Your task to perform on an android device: Go to CNN.com Image 0: 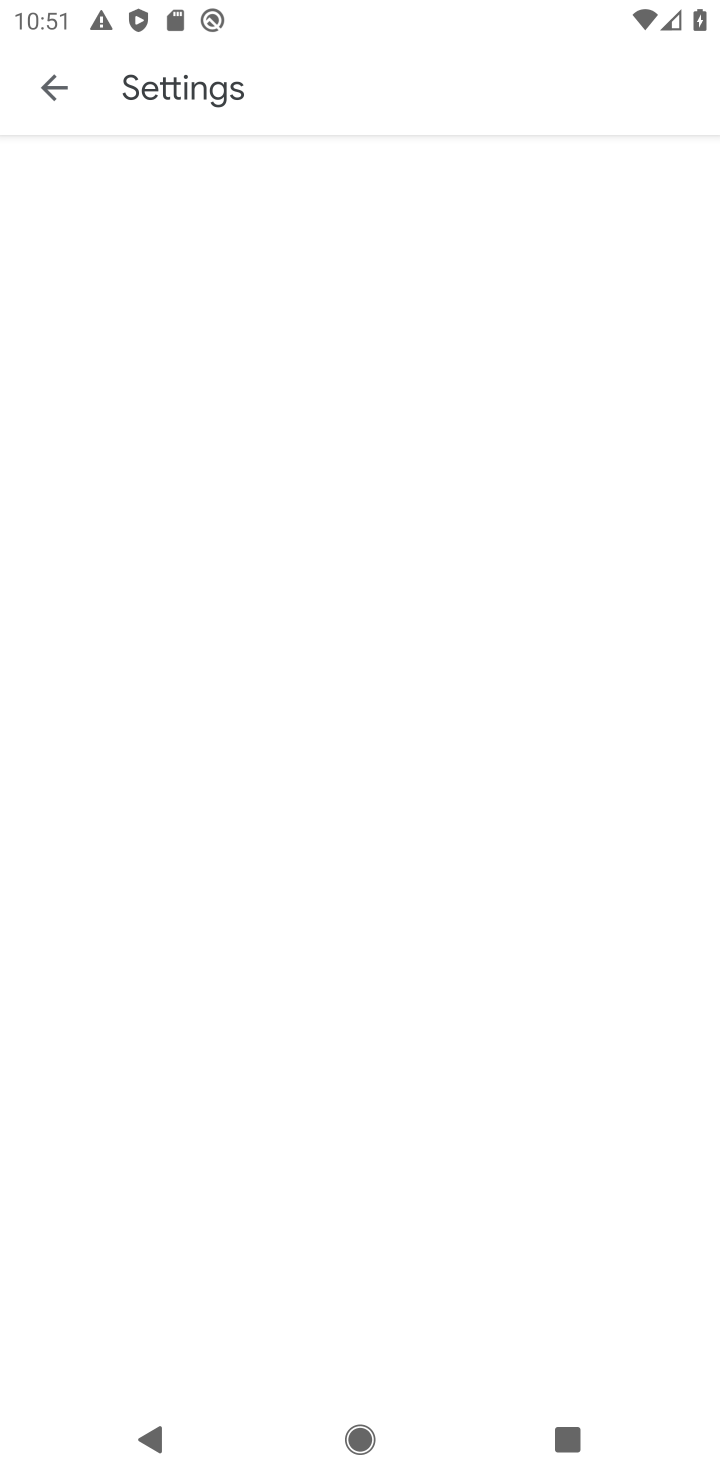
Step 0: press home button
Your task to perform on an android device: Go to CNN.com Image 1: 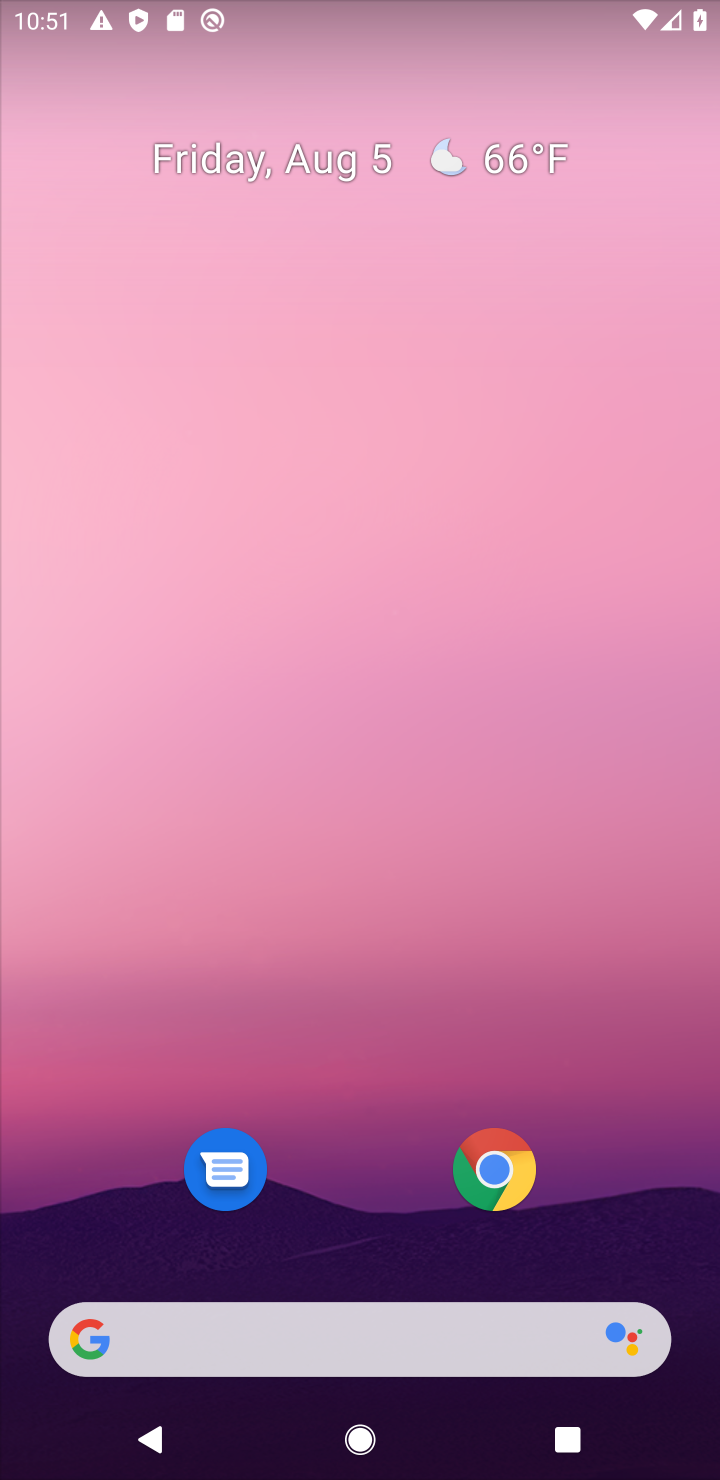
Step 1: drag from (314, 705) to (312, 403)
Your task to perform on an android device: Go to CNN.com Image 2: 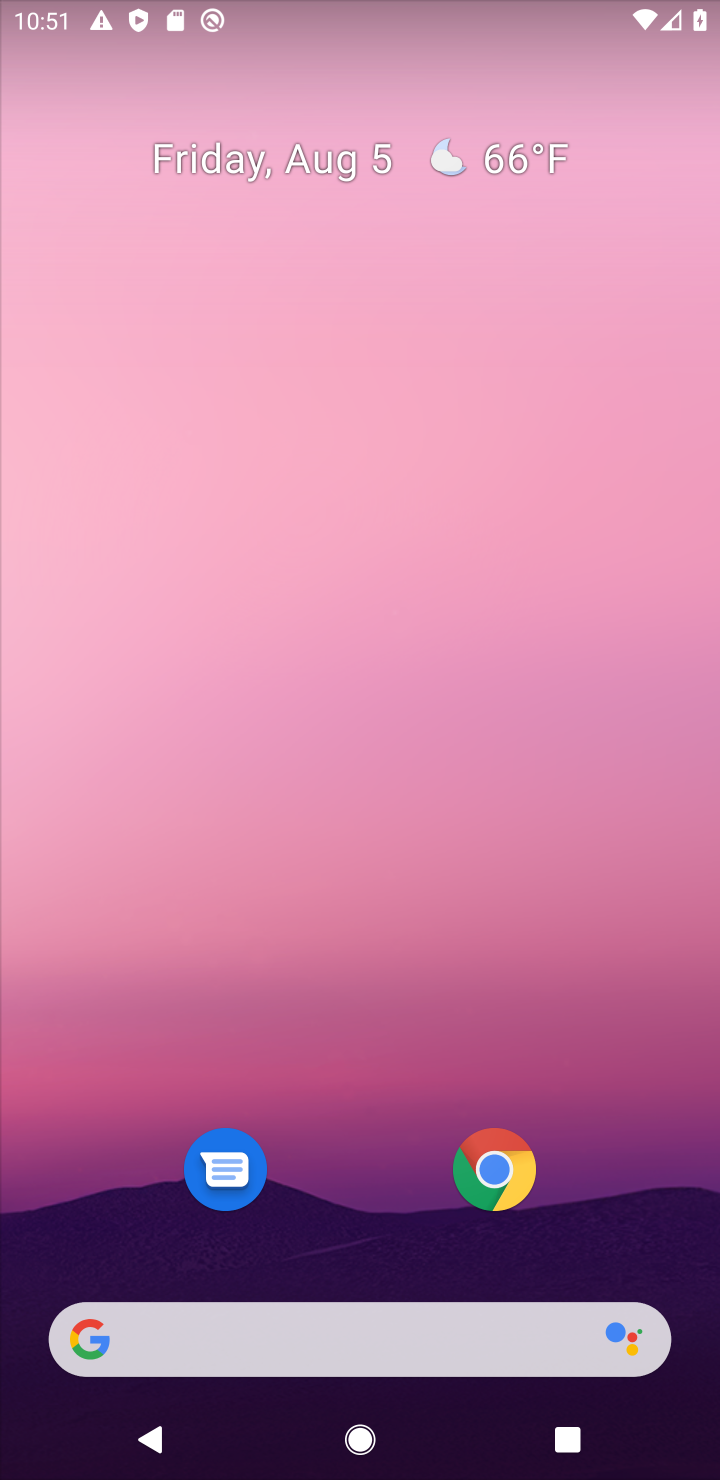
Step 2: click (475, 1161)
Your task to perform on an android device: Go to CNN.com Image 3: 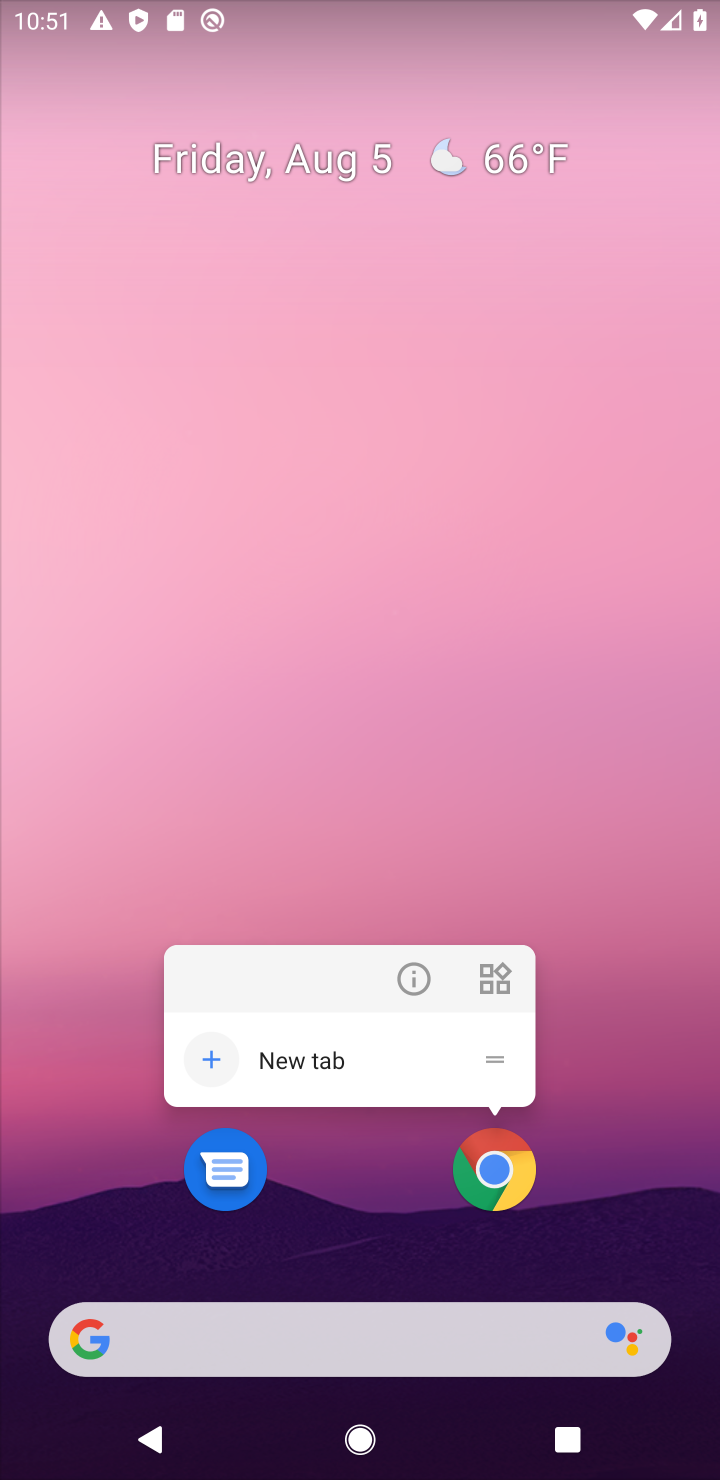
Step 3: click (473, 1161)
Your task to perform on an android device: Go to CNN.com Image 4: 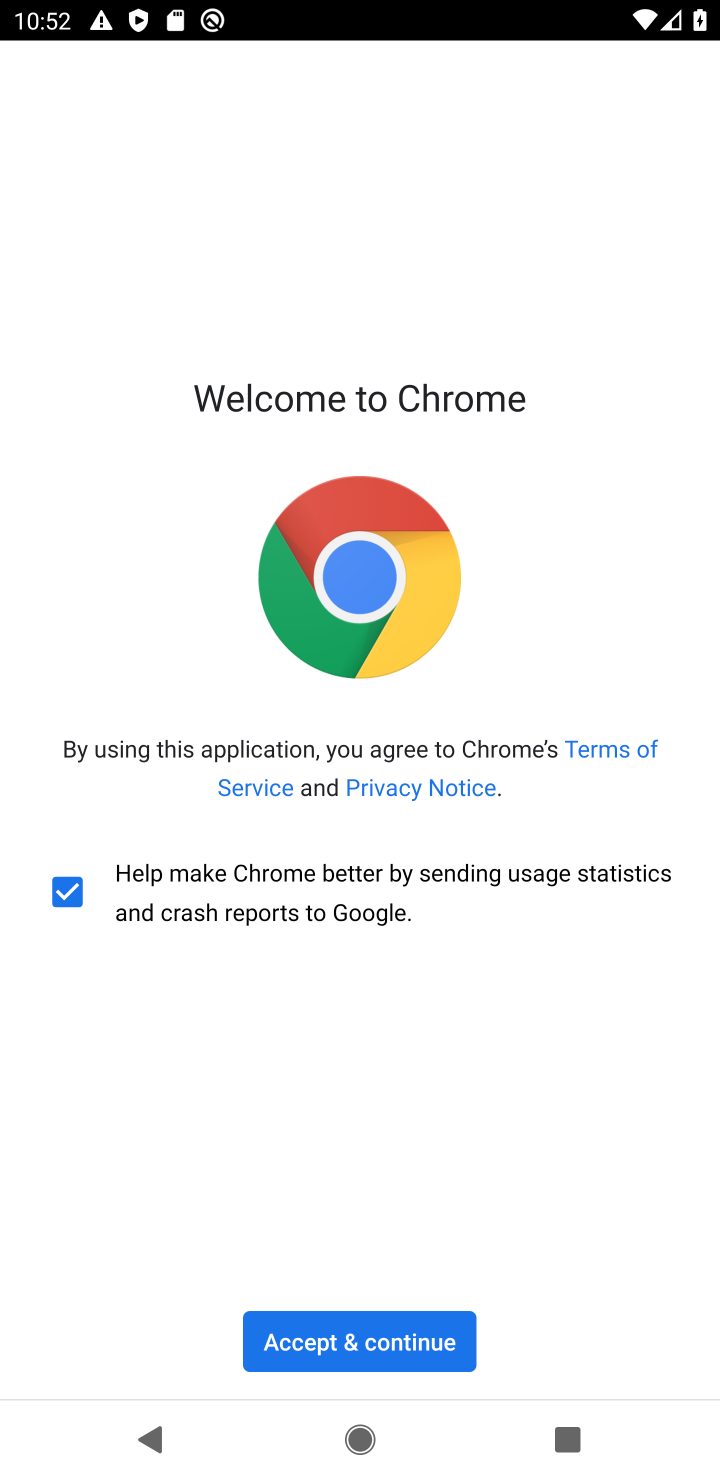
Step 4: click (327, 1345)
Your task to perform on an android device: Go to CNN.com Image 5: 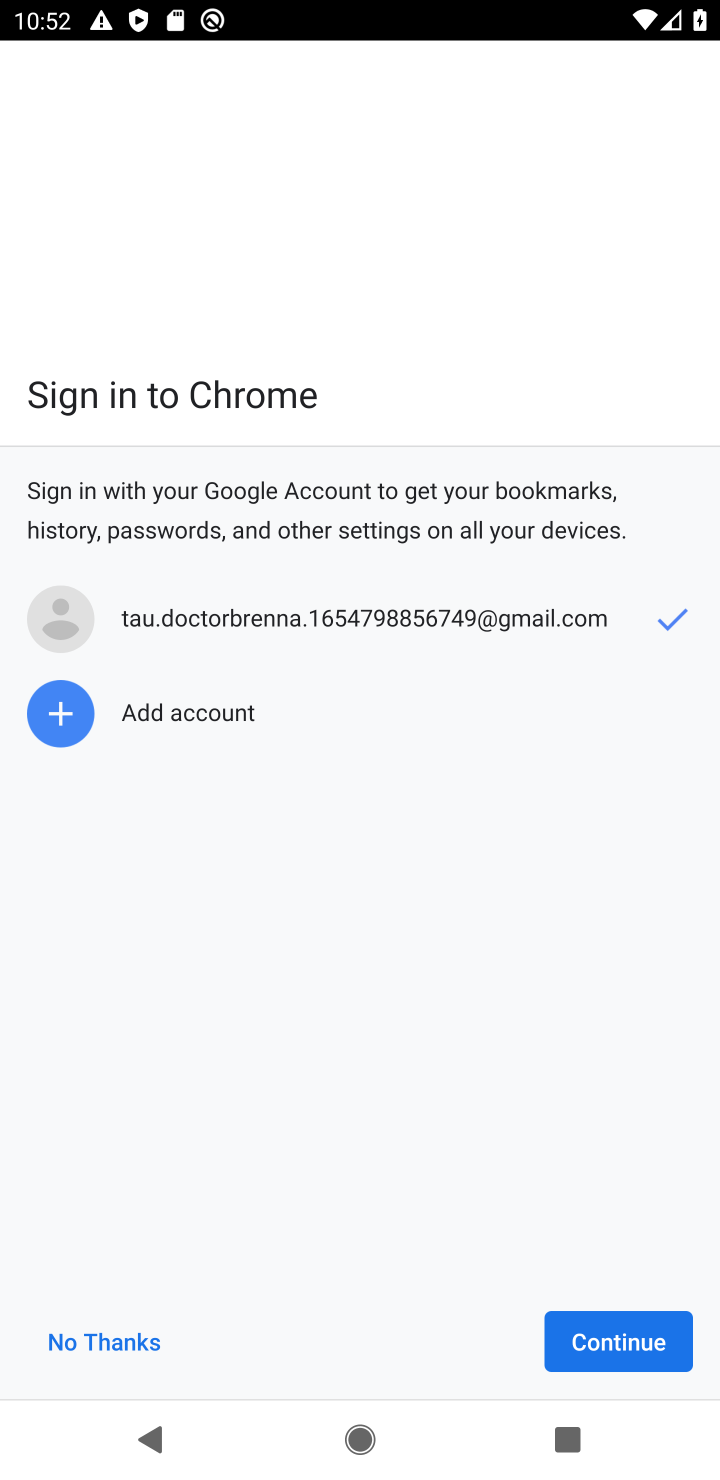
Step 5: click (627, 1335)
Your task to perform on an android device: Go to CNN.com Image 6: 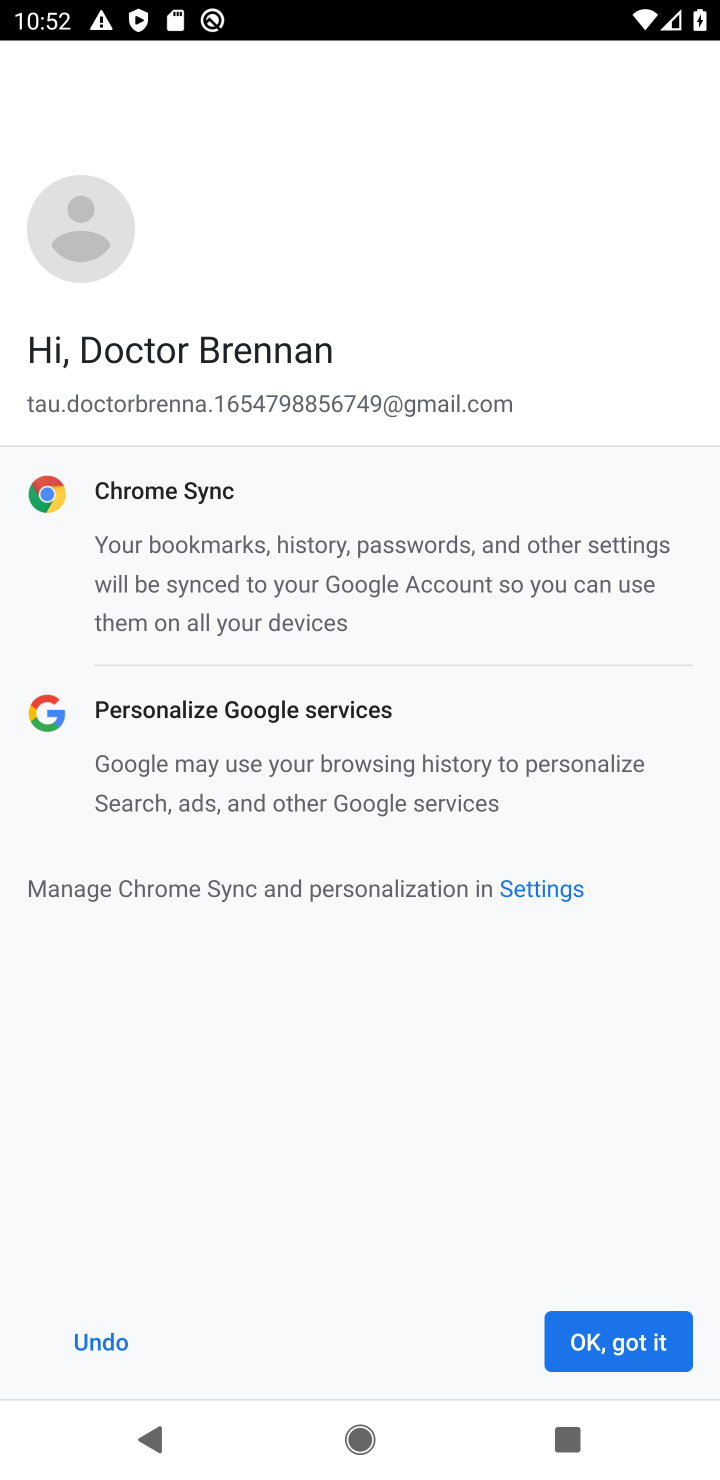
Step 6: click (629, 1340)
Your task to perform on an android device: Go to CNN.com Image 7: 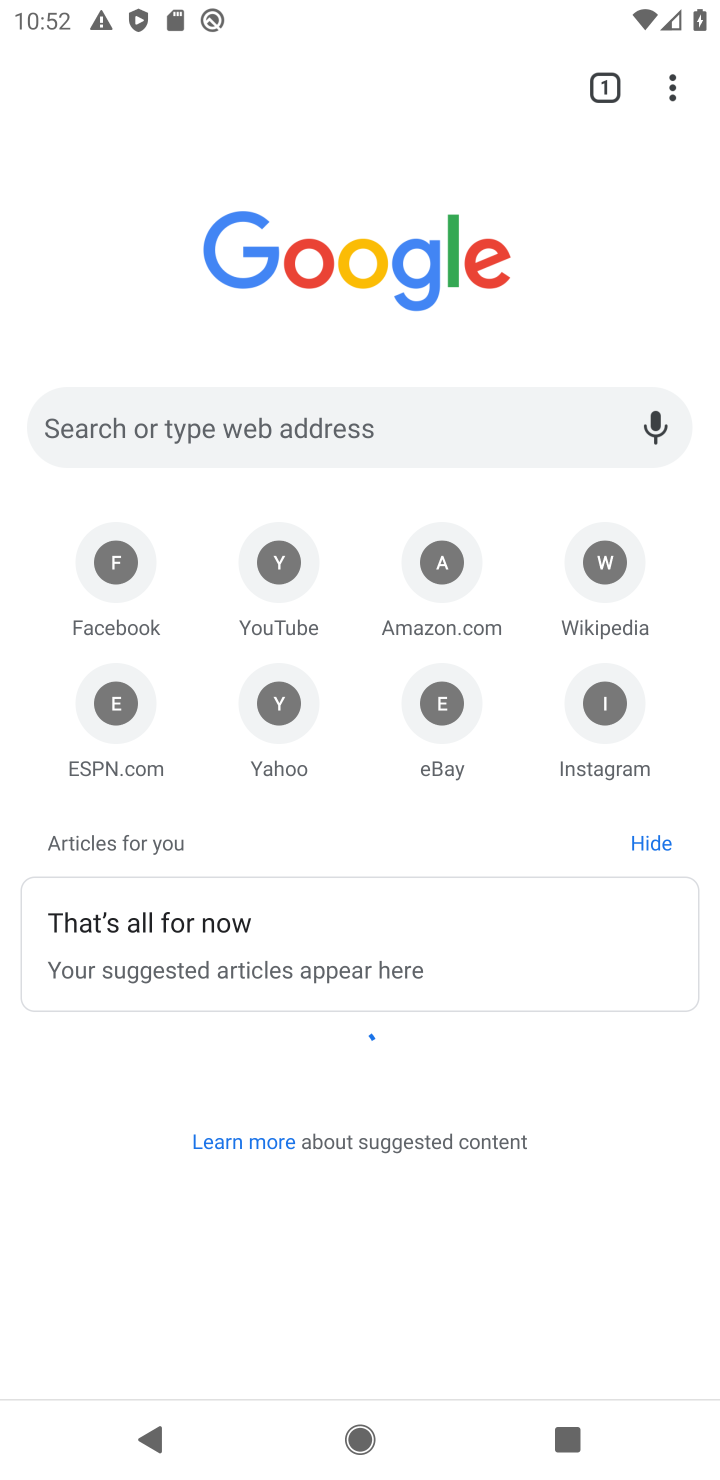
Step 7: click (360, 437)
Your task to perform on an android device: Go to CNN.com Image 8: 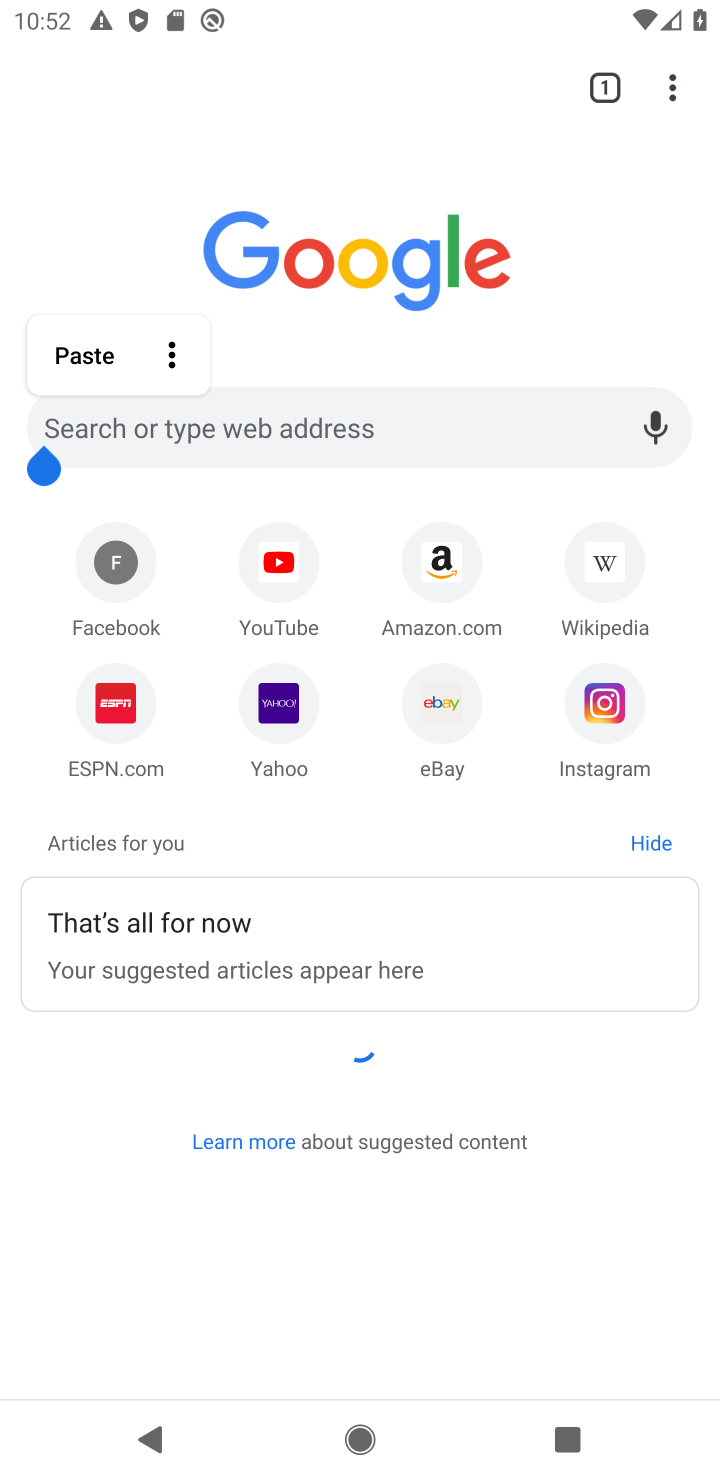
Step 8: type "CNN.com"
Your task to perform on an android device: Go to CNN.com Image 9: 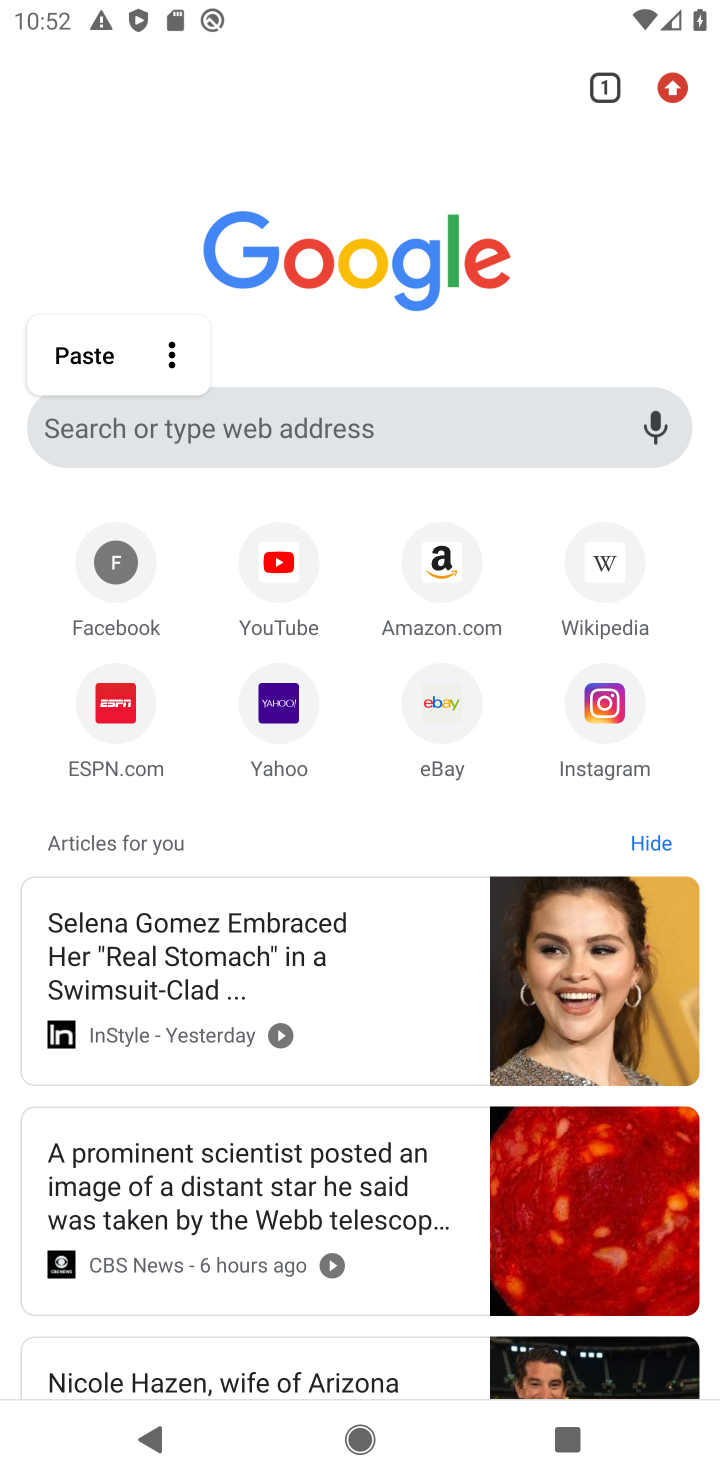
Step 9: click (355, 413)
Your task to perform on an android device: Go to CNN.com Image 10: 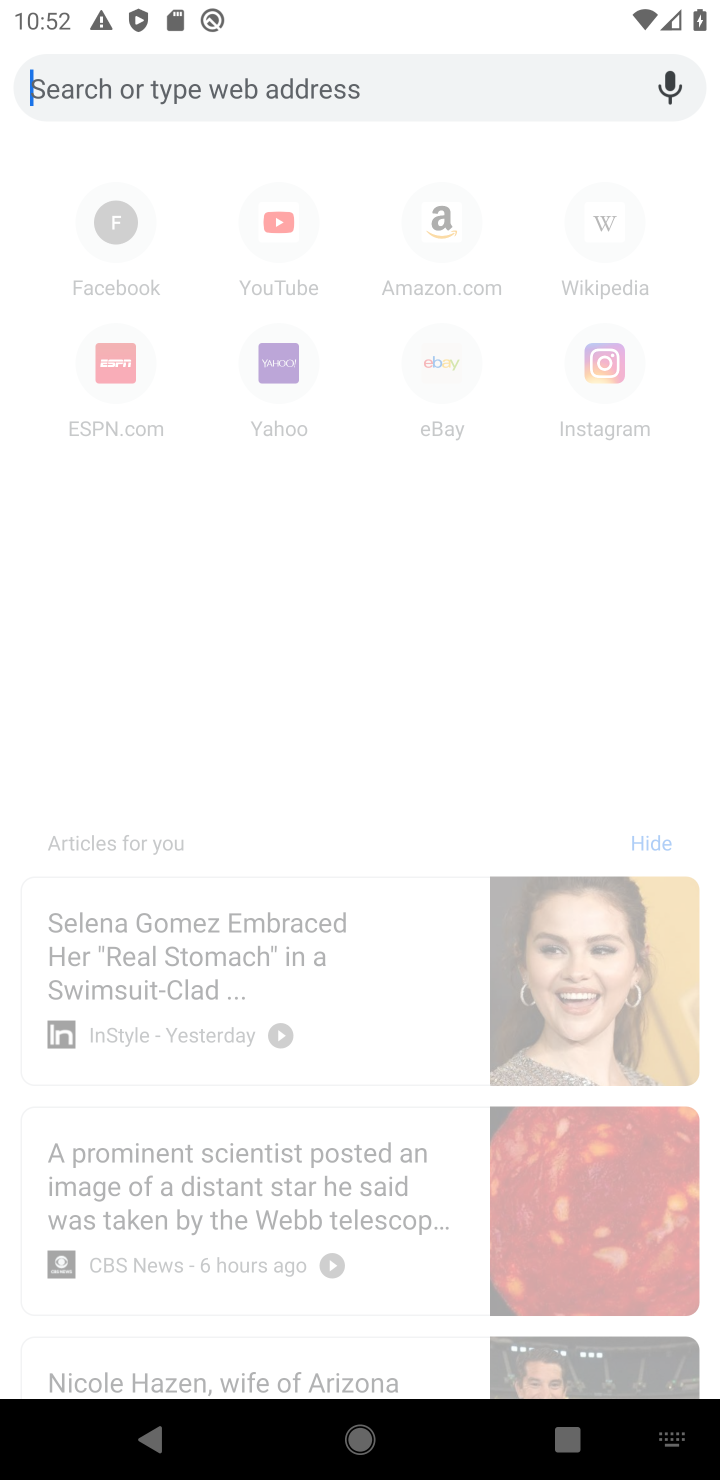
Step 10: type "CNN.com"
Your task to perform on an android device: Go to CNN.com Image 11: 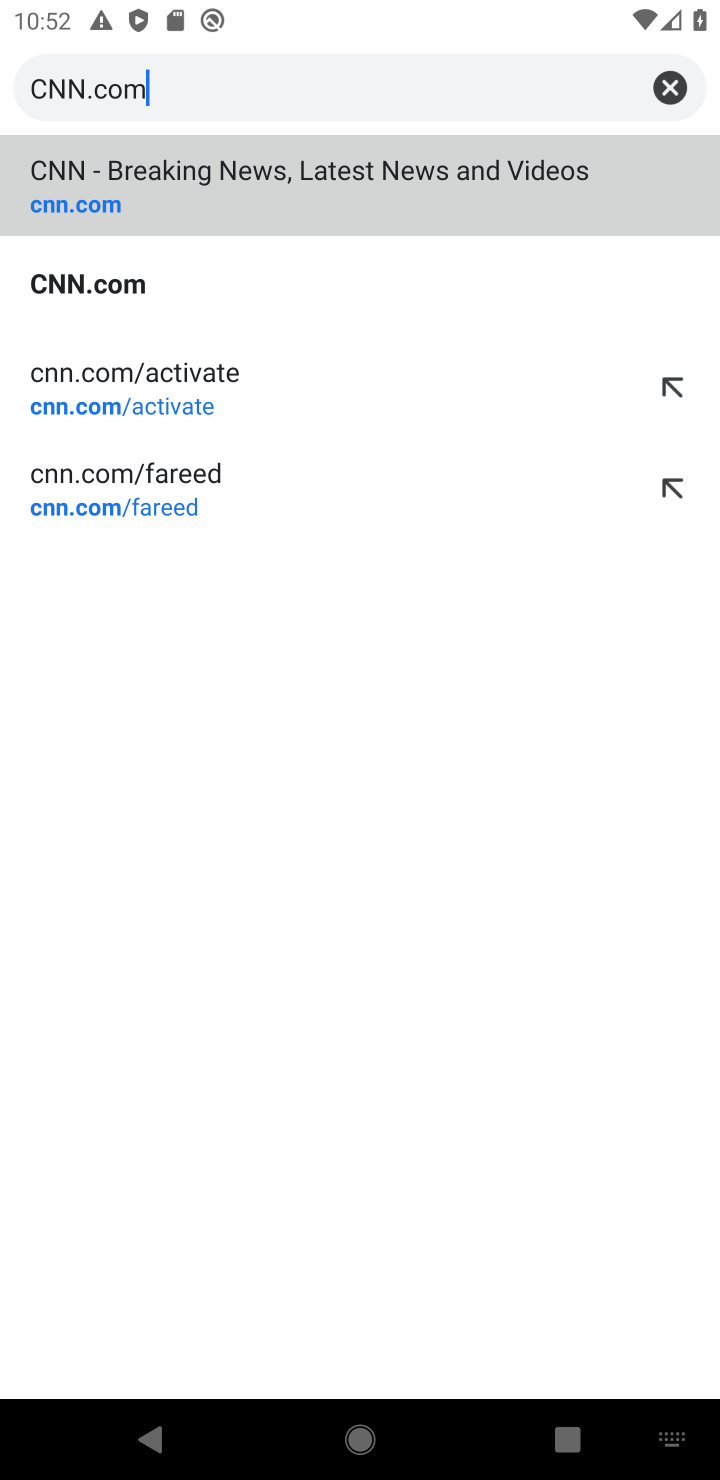
Step 11: click (226, 154)
Your task to perform on an android device: Go to CNN.com Image 12: 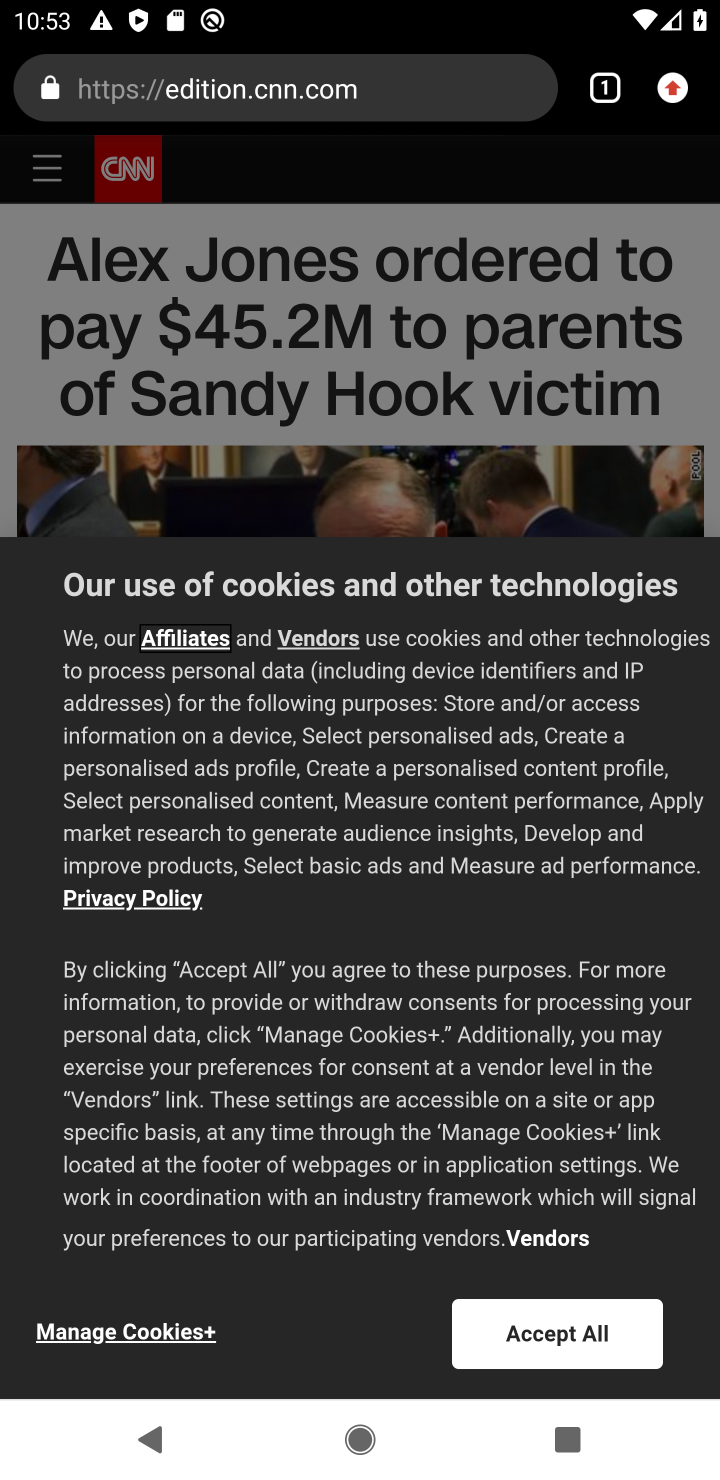
Step 12: task complete